Your task to perform on an android device: Go to eBay Image 0: 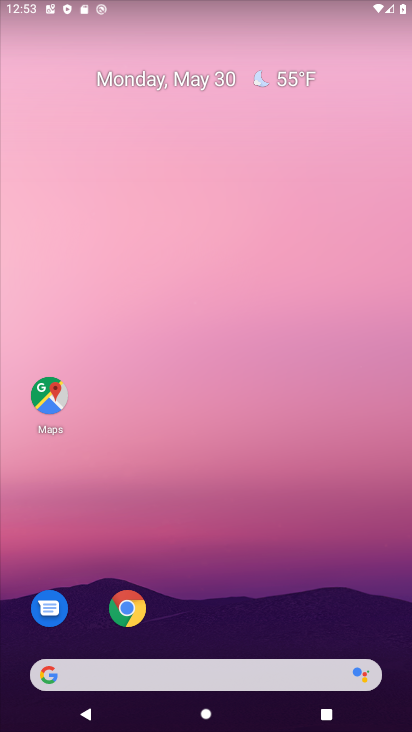
Step 0: click (133, 607)
Your task to perform on an android device: Go to eBay Image 1: 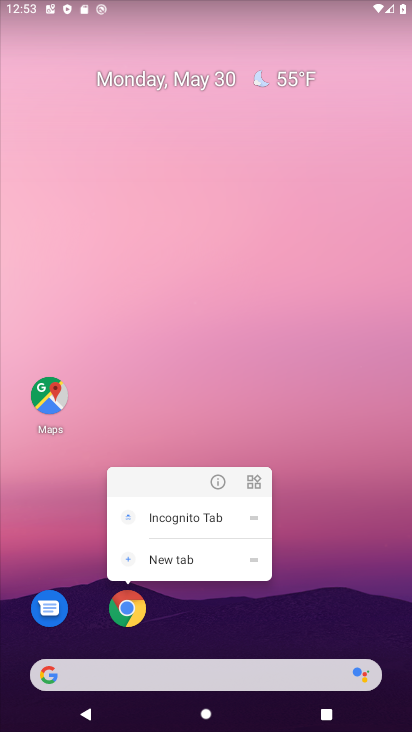
Step 1: click (133, 607)
Your task to perform on an android device: Go to eBay Image 2: 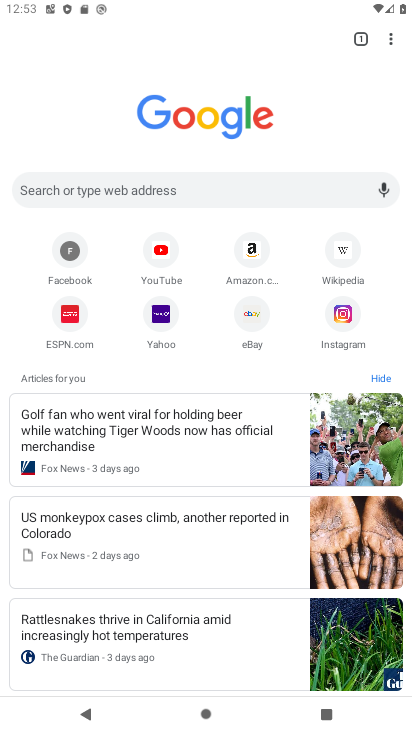
Step 2: click (267, 309)
Your task to perform on an android device: Go to eBay Image 3: 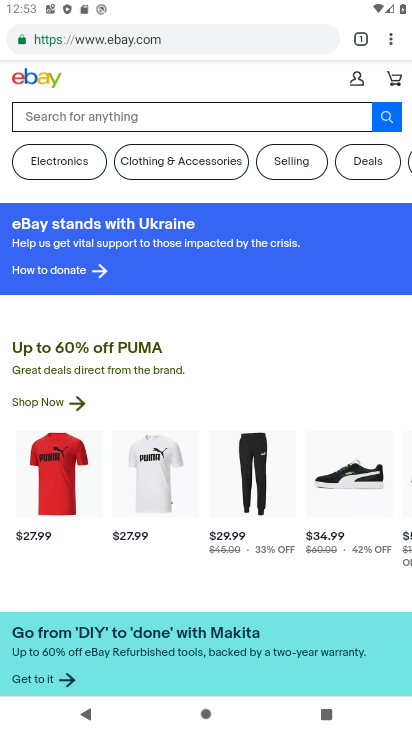
Step 3: task complete